Your task to perform on an android device: turn on location history Image 0: 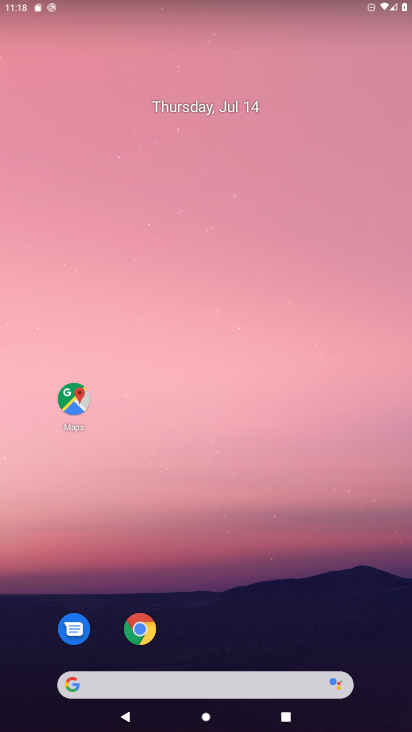
Step 0: drag from (194, 642) to (307, 22)
Your task to perform on an android device: turn on location history Image 1: 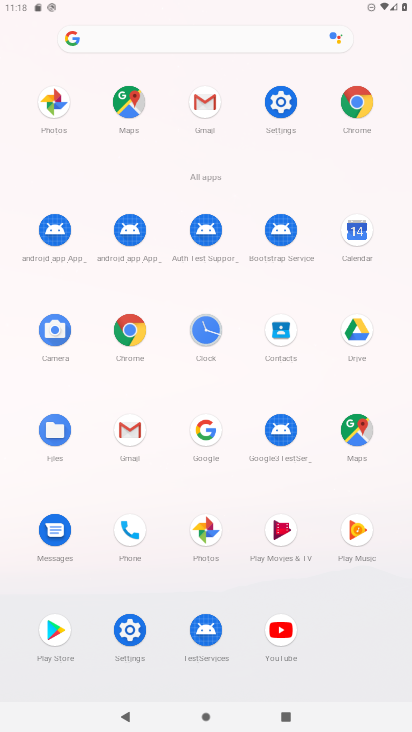
Step 1: click (281, 104)
Your task to perform on an android device: turn on location history Image 2: 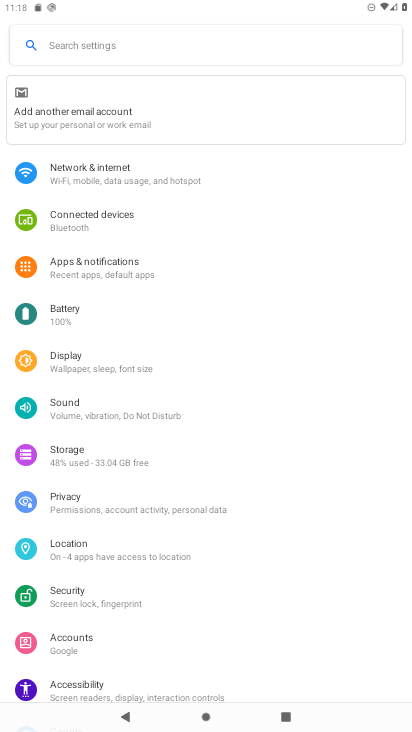
Step 2: click (99, 553)
Your task to perform on an android device: turn on location history Image 3: 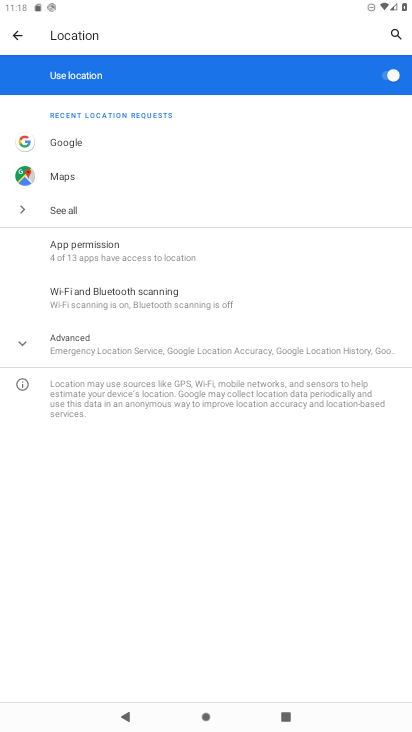
Step 3: click (174, 342)
Your task to perform on an android device: turn on location history Image 4: 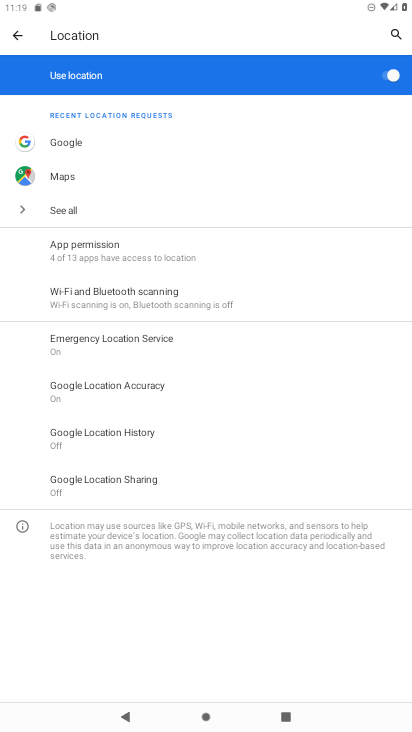
Step 4: click (168, 436)
Your task to perform on an android device: turn on location history Image 5: 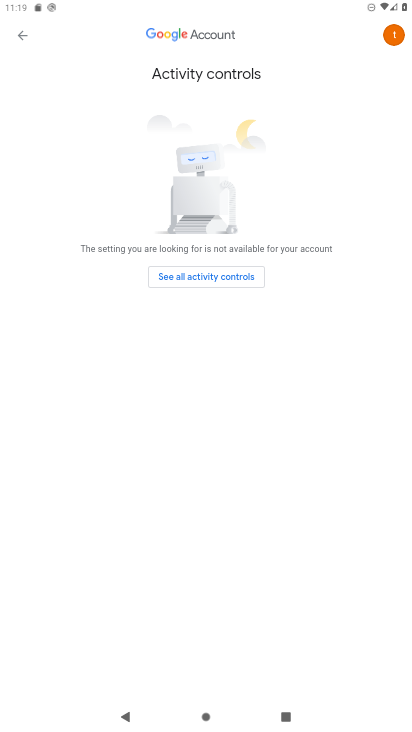
Step 5: task complete